Your task to perform on an android device: set default search engine in the chrome app Image 0: 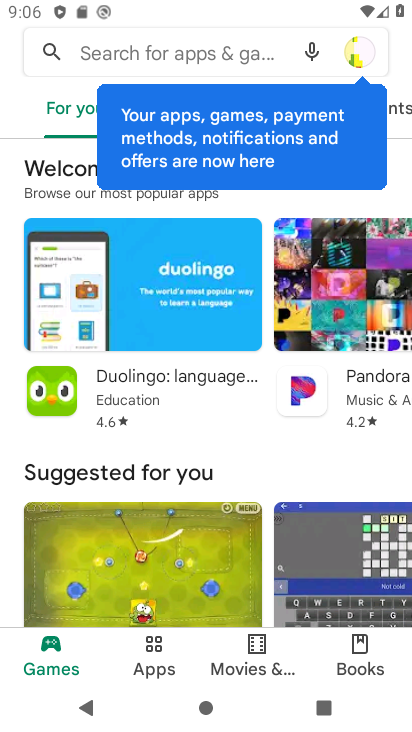
Step 0: drag from (285, 556) to (312, 247)
Your task to perform on an android device: set default search engine in the chrome app Image 1: 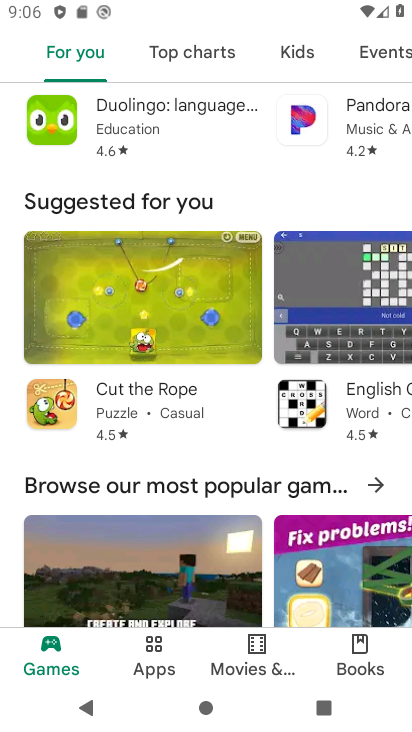
Step 1: press home button
Your task to perform on an android device: set default search engine in the chrome app Image 2: 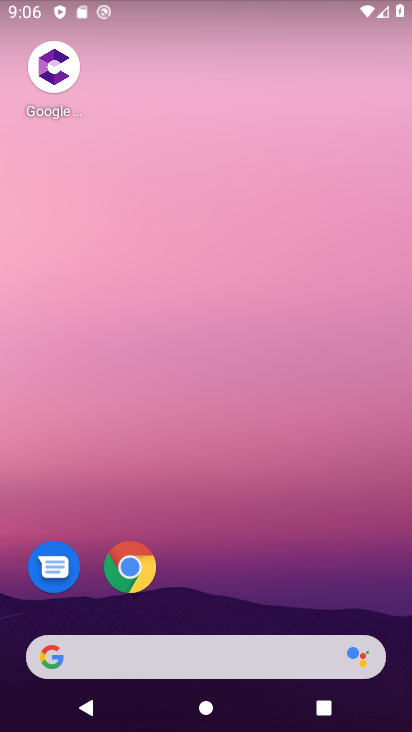
Step 2: drag from (162, 617) to (217, 228)
Your task to perform on an android device: set default search engine in the chrome app Image 3: 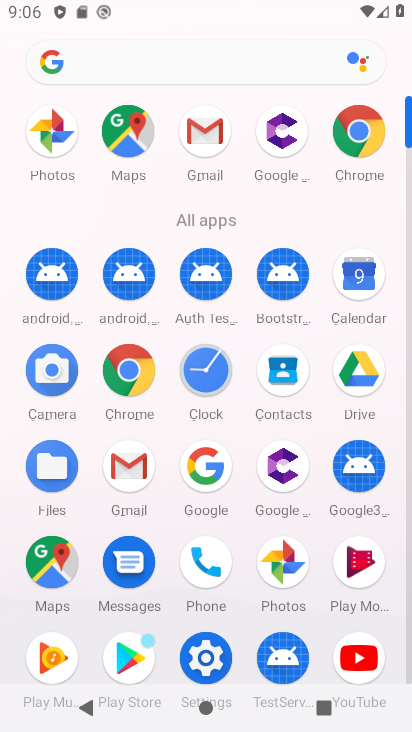
Step 3: click (359, 132)
Your task to perform on an android device: set default search engine in the chrome app Image 4: 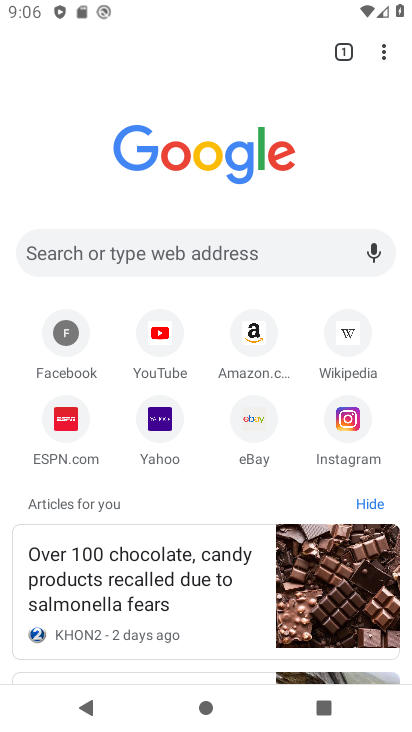
Step 4: drag from (387, 51) to (256, 428)
Your task to perform on an android device: set default search engine in the chrome app Image 5: 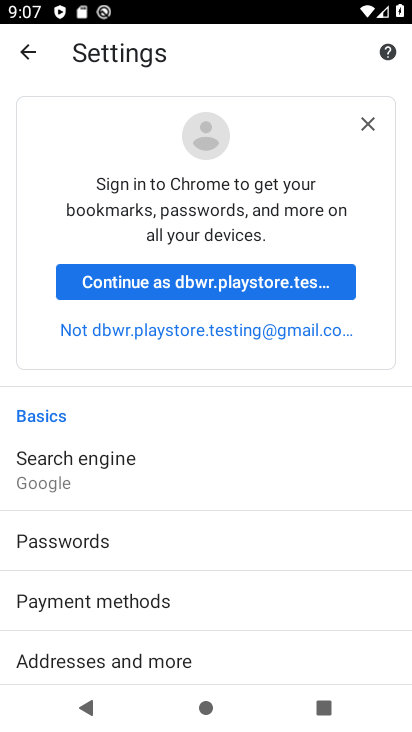
Step 5: click (89, 463)
Your task to perform on an android device: set default search engine in the chrome app Image 6: 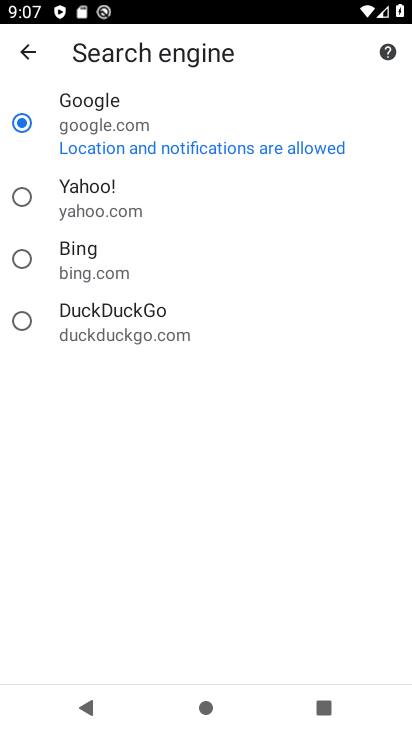
Step 6: task complete